Your task to perform on an android device: Open Maps and search for coffee Image 0: 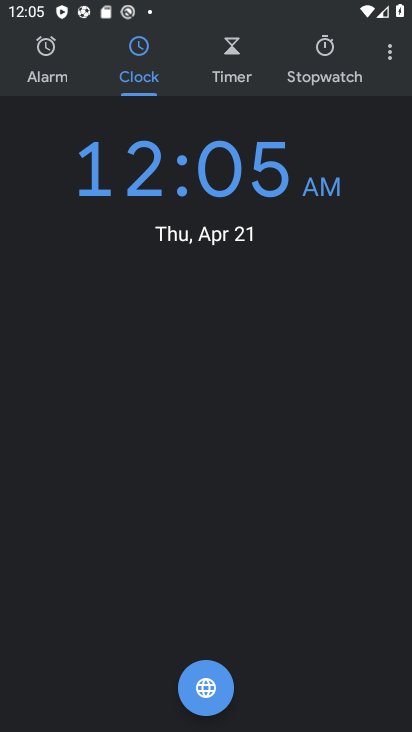
Step 0: press home button
Your task to perform on an android device: Open Maps and search for coffee Image 1: 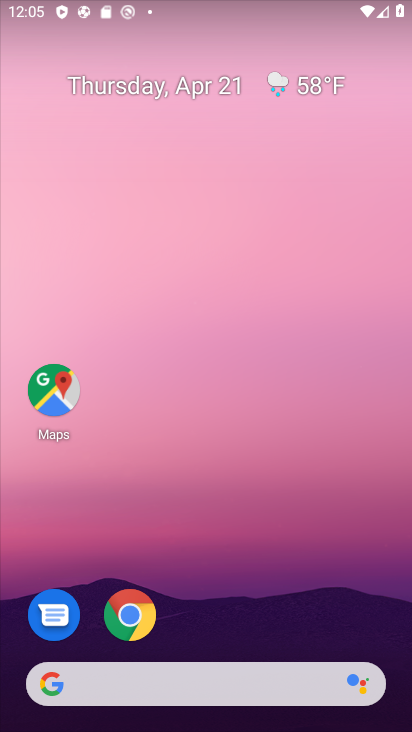
Step 1: drag from (383, 601) to (397, 31)
Your task to perform on an android device: Open Maps and search for coffee Image 2: 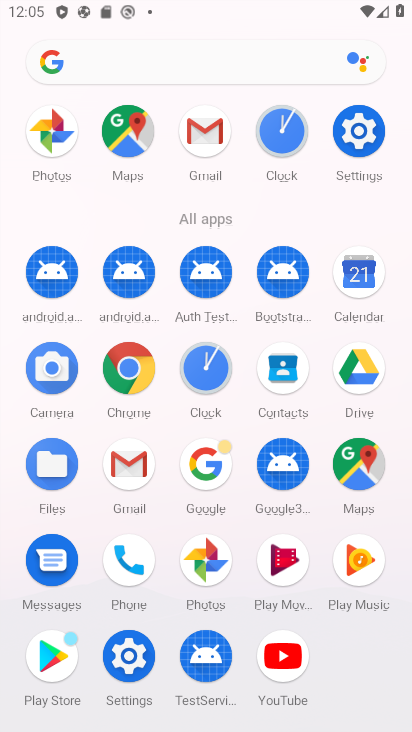
Step 2: click (120, 144)
Your task to perform on an android device: Open Maps and search for coffee Image 3: 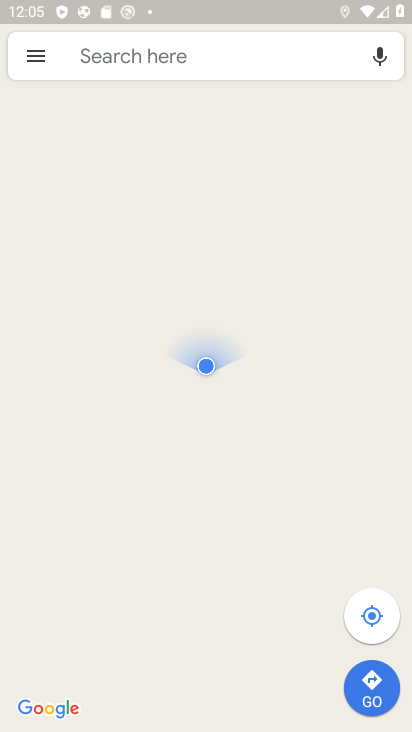
Step 3: click (134, 60)
Your task to perform on an android device: Open Maps and search for coffee Image 4: 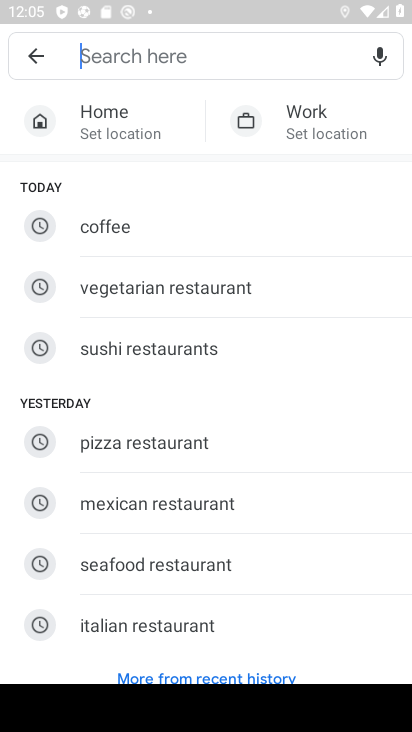
Step 4: type "coffee"
Your task to perform on an android device: Open Maps and search for coffee Image 5: 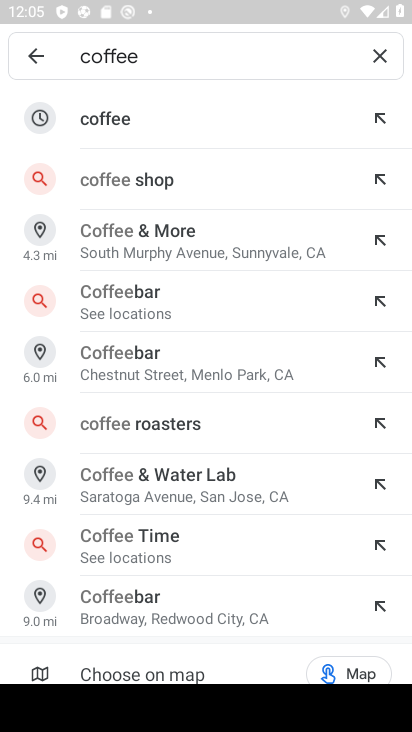
Step 5: click (115, 114)
Your task to perform on an android device: Open Maps and search for coffee Image 6: 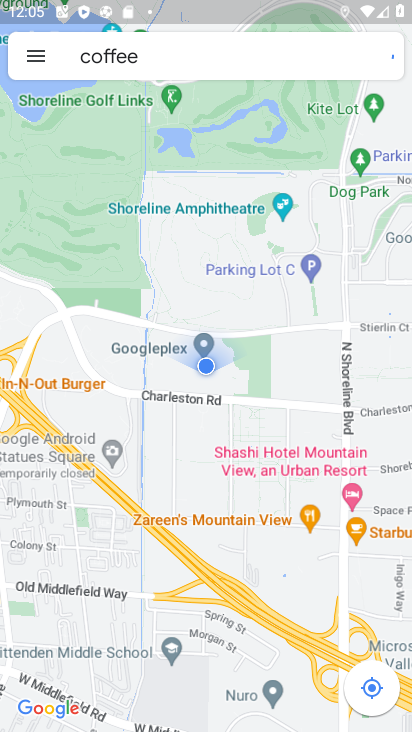
Step 6: task complete